Your task to perform on an android device: Open Yahoo.com Image 0: 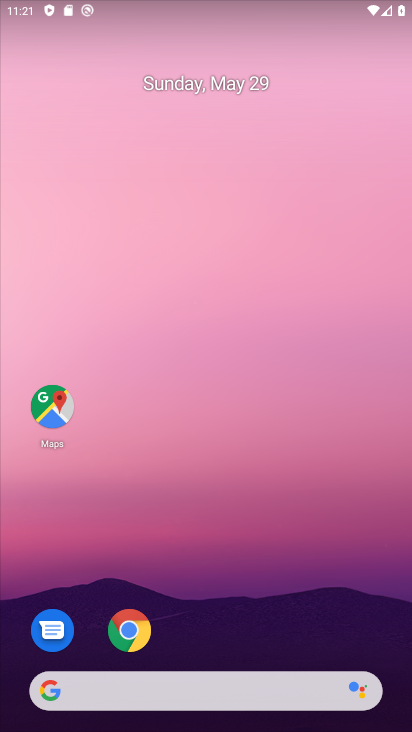
Step 0: click (135, 639)
Your task to perform on an android device: Open Yahoo.com Image 1: 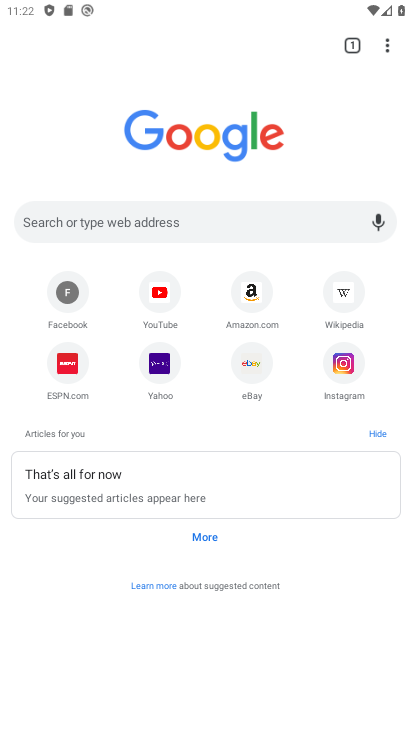
Step 1: click (162, 369)
Your task to perform on an android device: Open Yahoo.com Image 2: 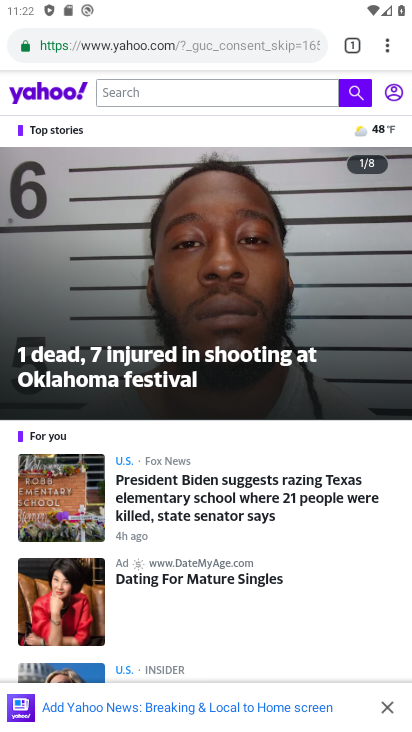
Step 2: task complete